Your task to perform on an android device: turn notification dots off Image 0: 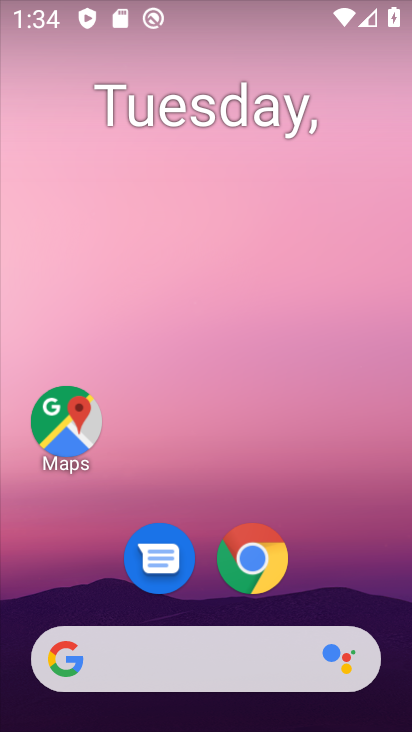
Step 0: drag from (228, 550) to (299, 50)
Your task to perform on an android device: turn notification dots off Image 1: 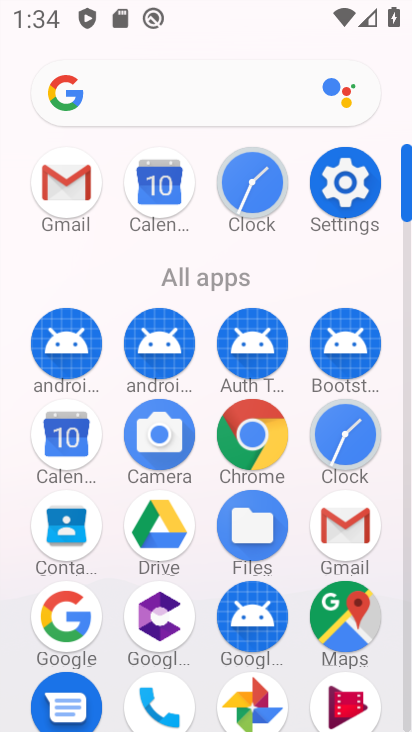
Step 1: click (360, 180)
Your task to perform on an android device: turn notification dots off Image 2: 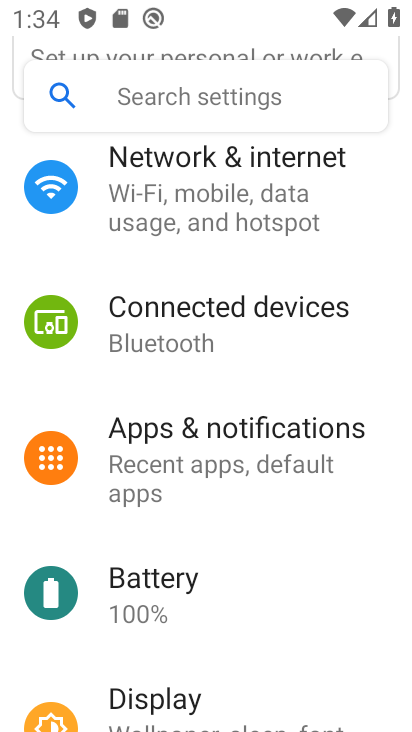
Step 2: click (226, 431)
Your task to perform on an android device: turn notification dots off Image 3: 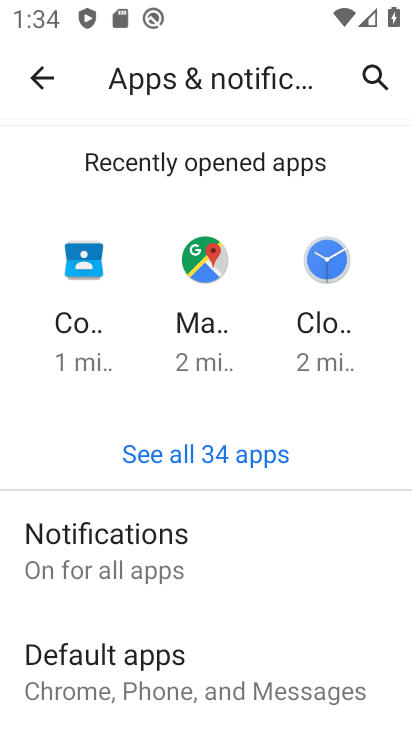
Step 3: click (143, 564)
Your task to perform on an android device: turn notification dots off Image 4: 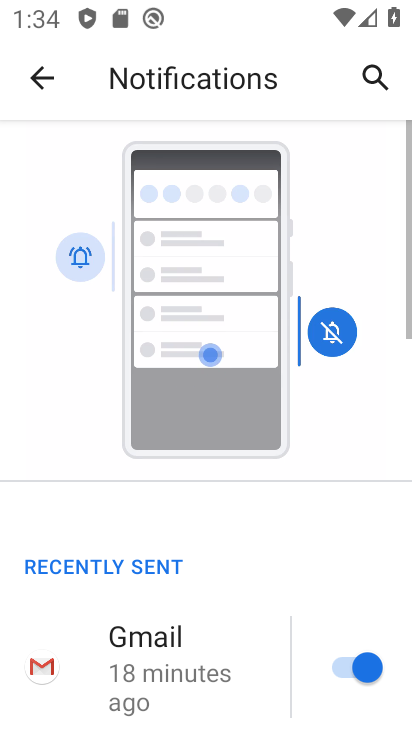
Step 4: drag from (188, 625) to (385, 57)
Your task to perform on an android device: turn notification dots off Image 5: 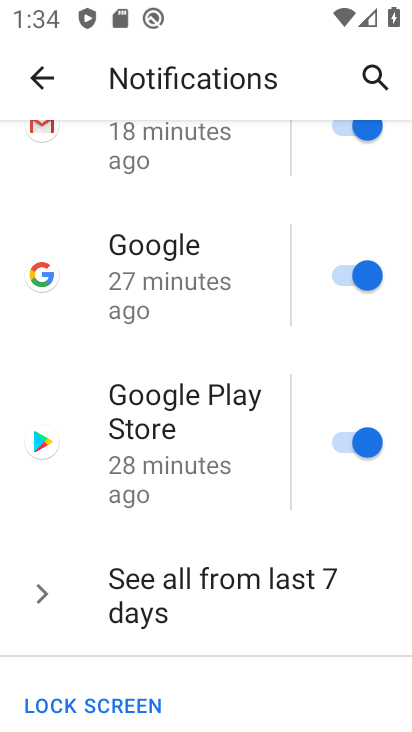
Step 5: drag from (183, 638) to (348, 56)
Your task to perform on an android device: turn notification dots off Image 6: 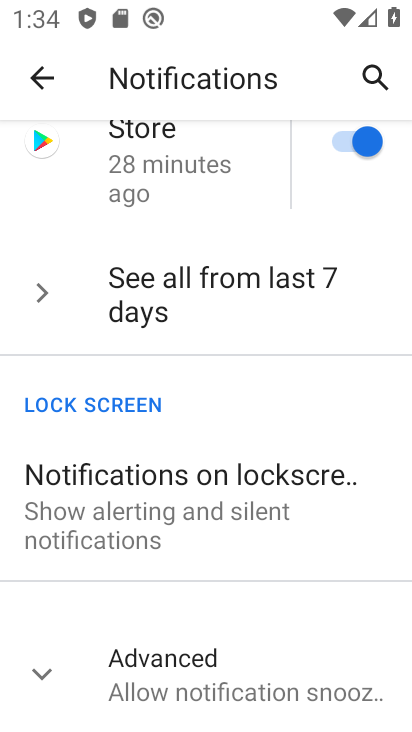
Step 6: drag from (176, 669) to (333, 177)
Your task to perform on an android device: turn notification dots off Image 7: 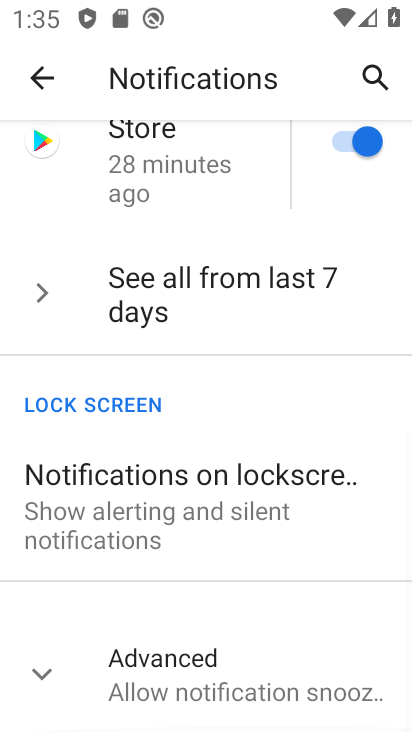
Step 7: click (167, 662)
Your task to perform on an android device: turn notification dots off Image 8: 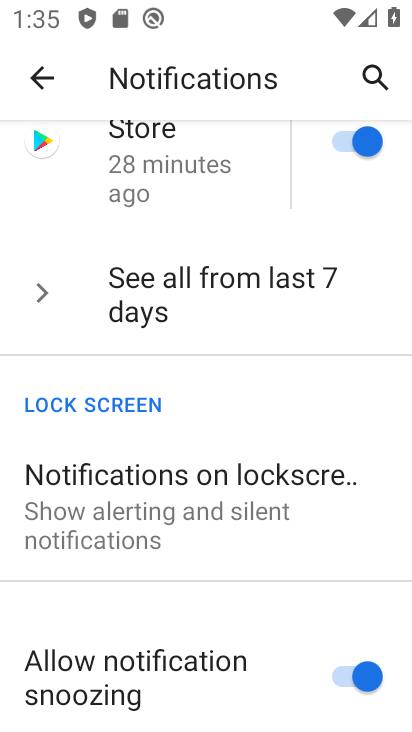
Step 8: task complete